Your task to perform on an android device: Open the map Image 0: 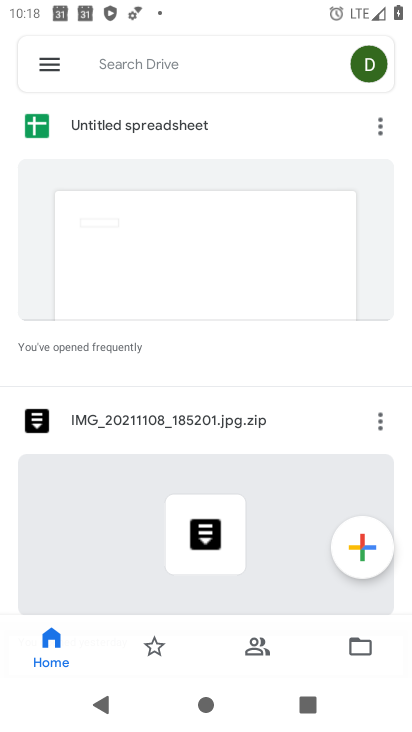
Step 0: press home button
Your task to perform on an android device: Open the map Image 1: 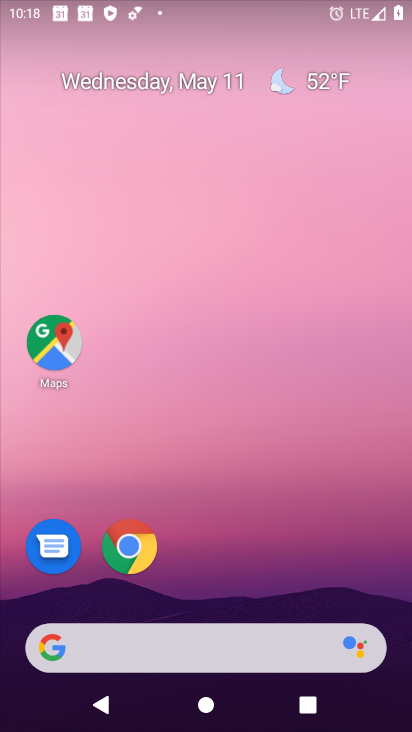
Step 1: click (65, 343)
Your task to perform on an android device: Open the map Image 2: 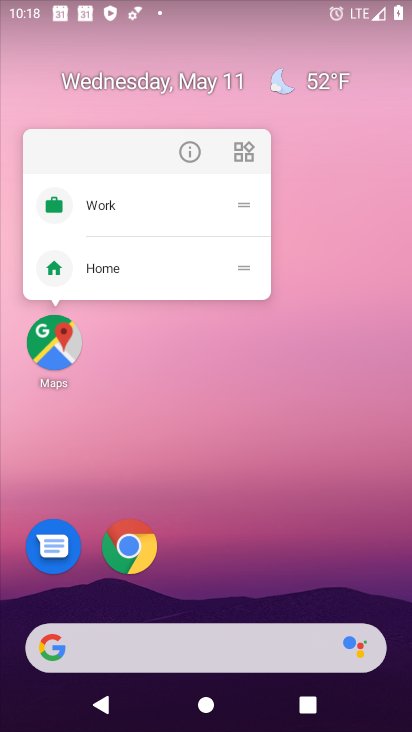
Step 2: click (56, 342)
Your task to perform on an android device: Open the map Image 3: 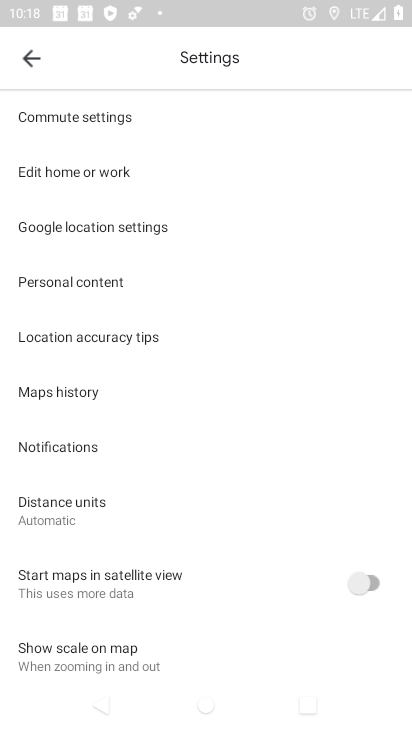
Step 3: click (18, 61)
Your task to perform on an android device: Open the map Image 4: 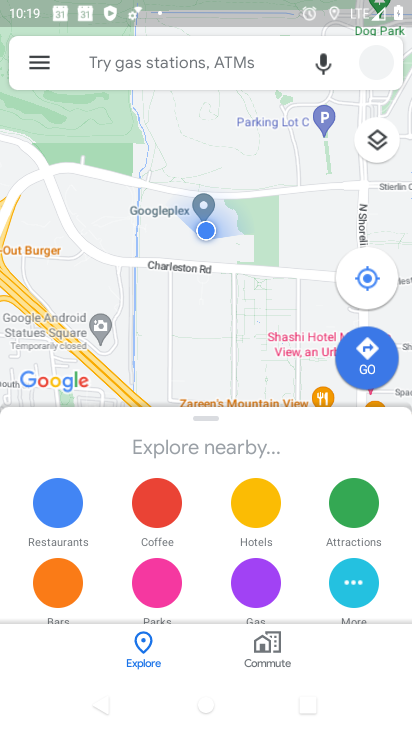
Step 4: click (26, 67)
Your task to perform on an android device: Open the map Image 5: 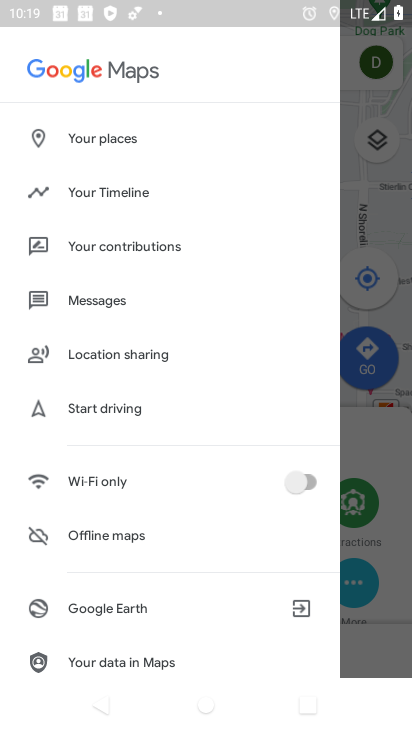
Step 5: click (371, 227)
Your task to perform on an android device: Open the map Image 6: 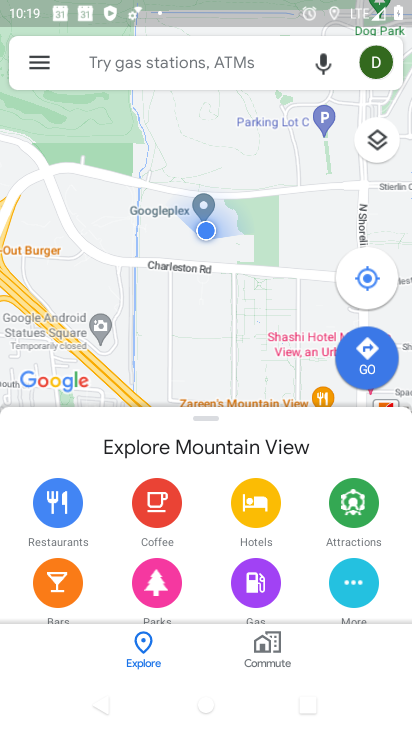
Step 6: task complete